Your task to perform on an android device: Go to settings Image 0: 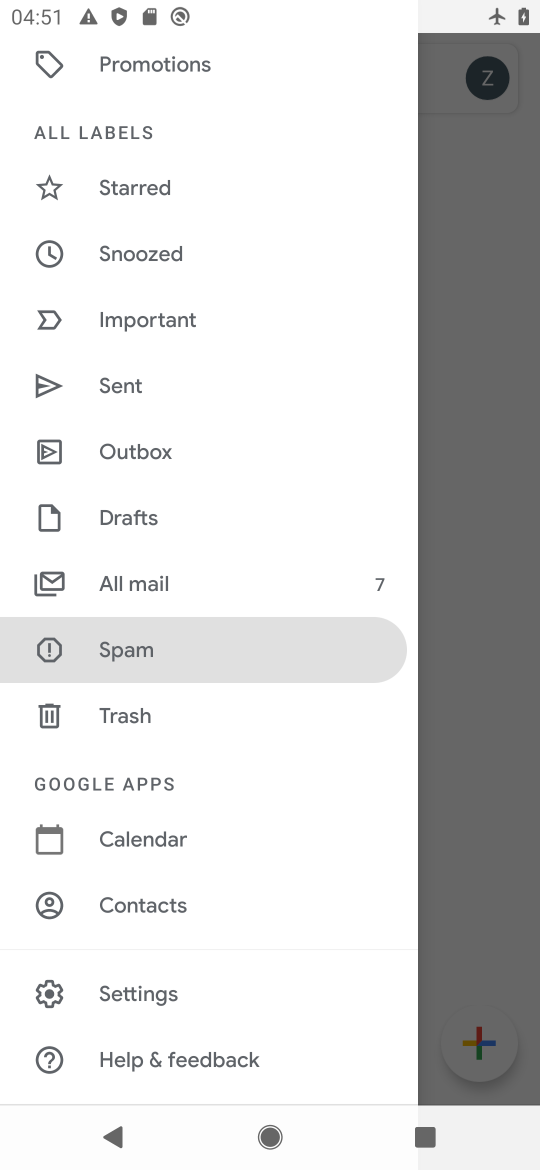
Step 0: press home button
Your task to perform on an android device: Go to settings Image 1: 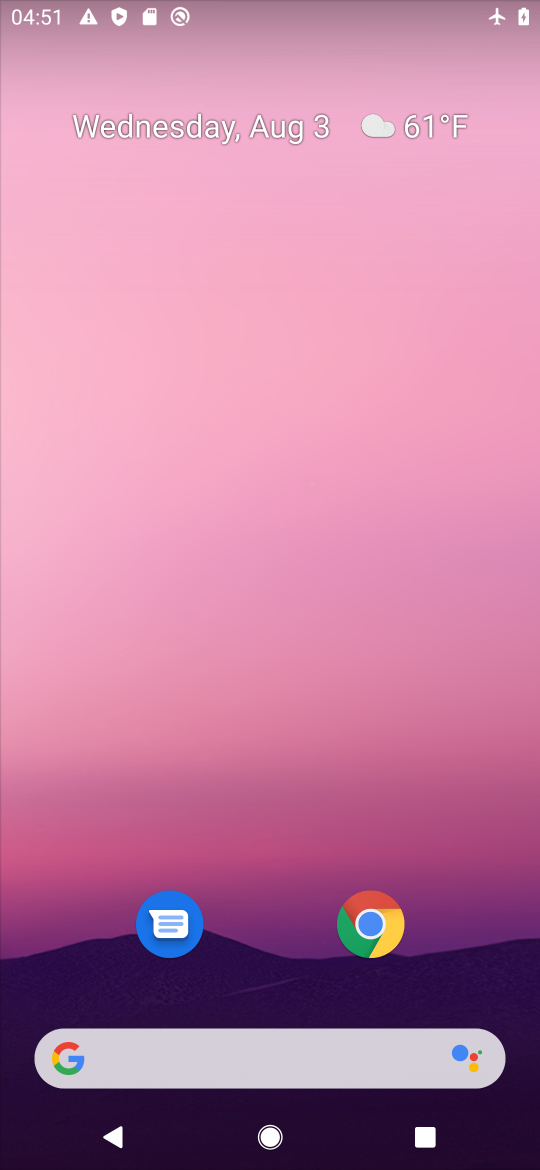
Step 1: drag from (278, 949) to (245, 337)
Your task to perform on an android device: Go to settings Image 2: 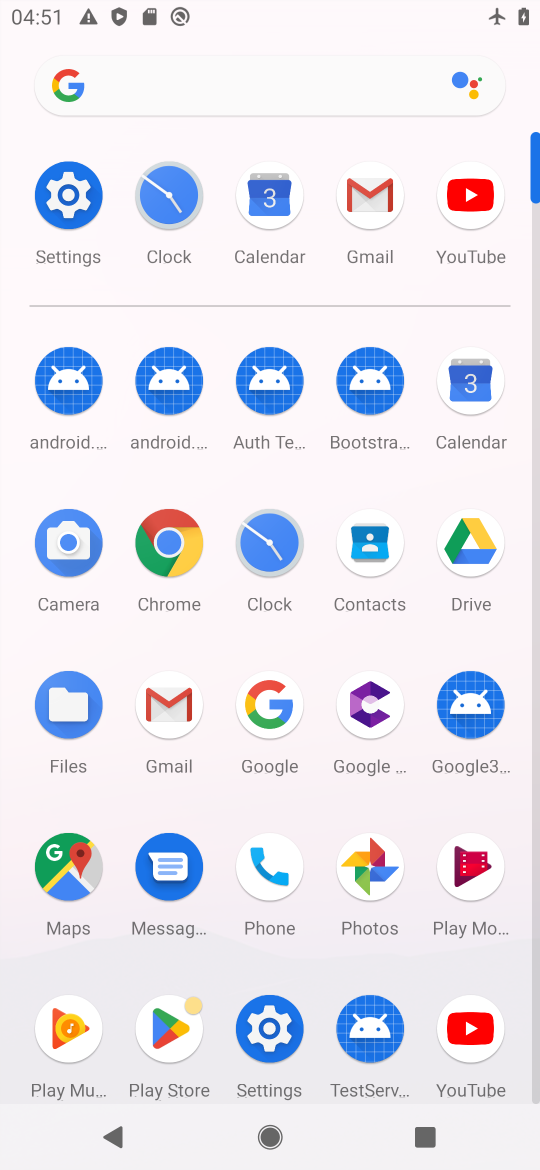
Step 2: click (80, 189)
Your task to perform on an android device: Go to settings Image 3: 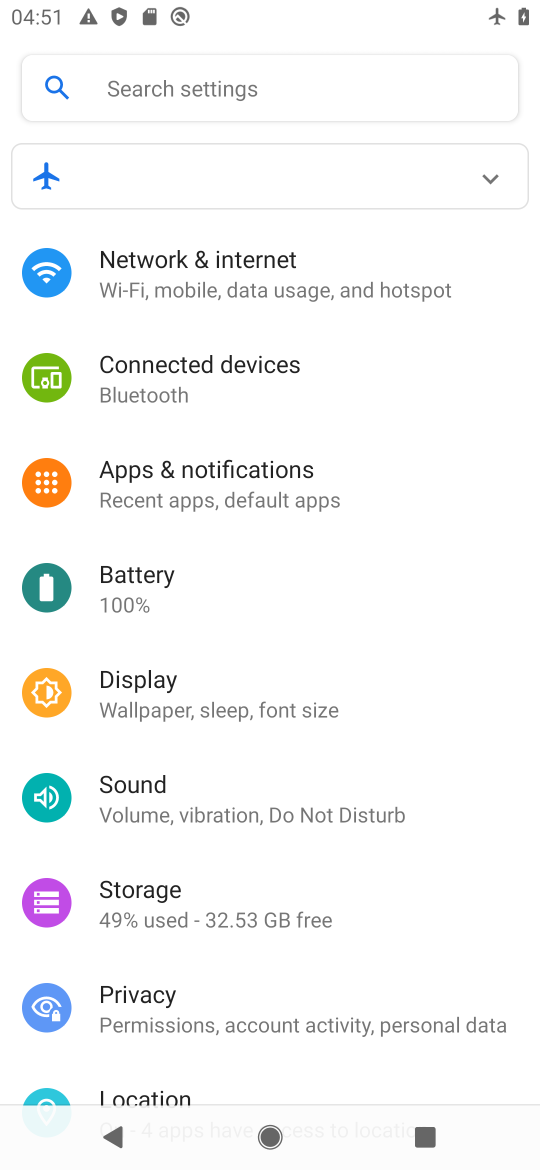
Step 3: task complete